Your task to perform on an android device: turn notification dots off Image 0: 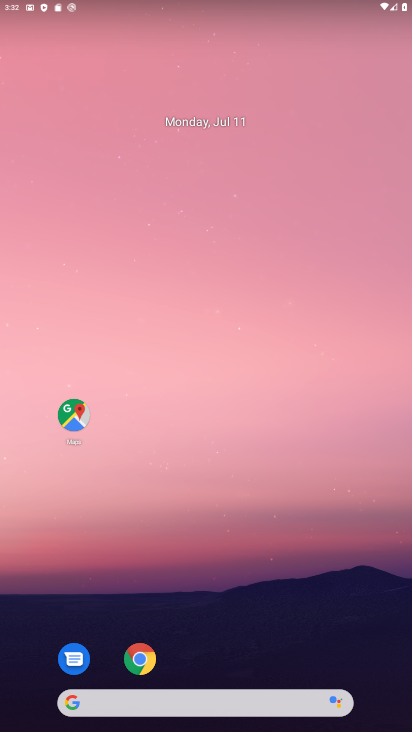
Step 0: drag from (220, 539) to (196, 32)
Your task to perform on an android device: turn notification dots off Image 1: 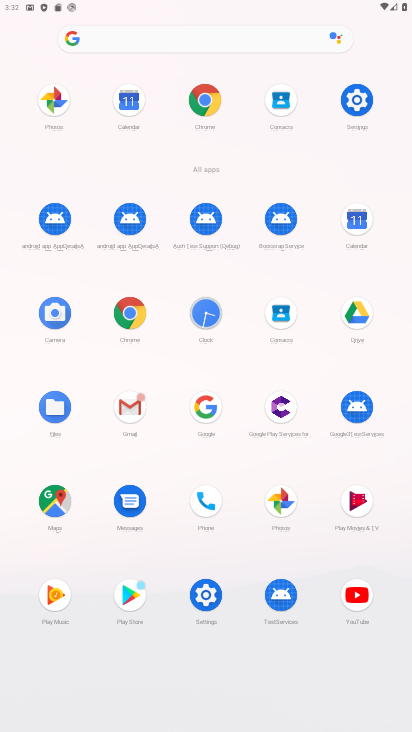
Step 1: click (350, 108)
Your task to perform on an android device: turn notification dots off Image 2: 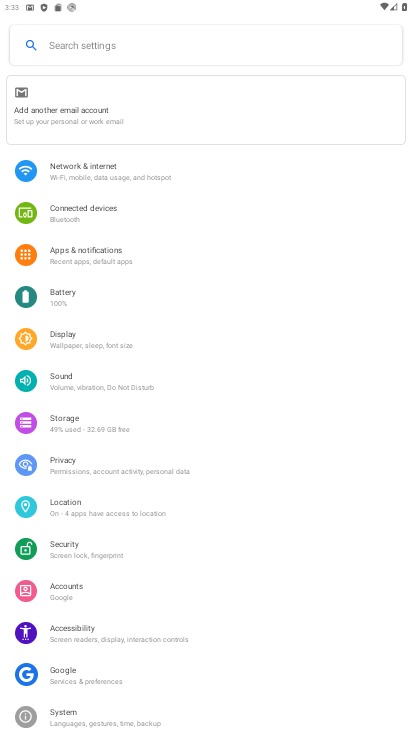
Step 2: click (108, 256)
Your task to perform on an android device: turn notification dots off Image 3: 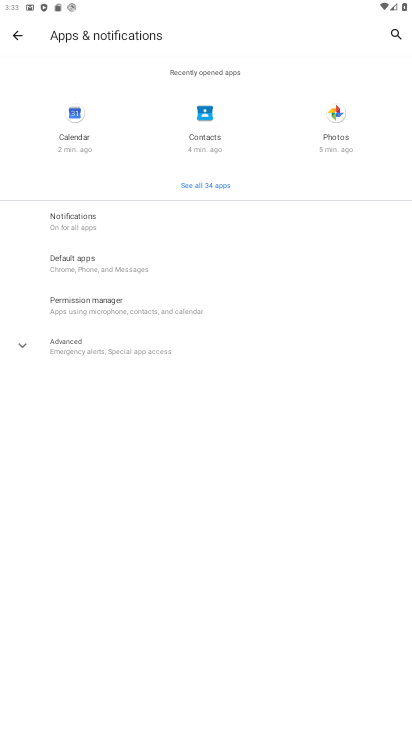
Step 3: click (45, 350)
Your task to perform on an android device: turn notification dots off Image 4: 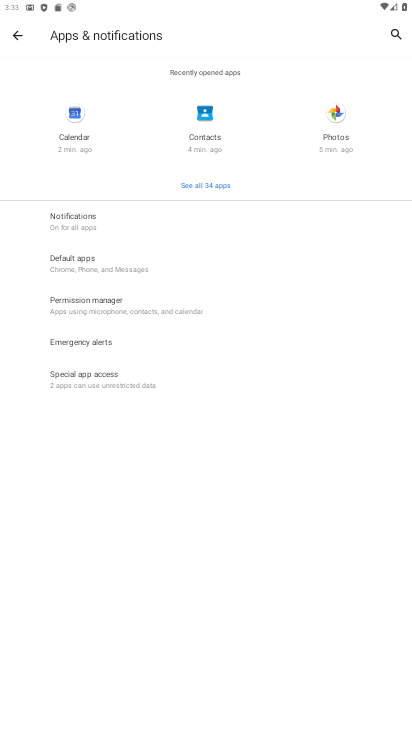
Step 4: click (112, 233)
Your task to perform on an android device: turn notification dots off Image 5: 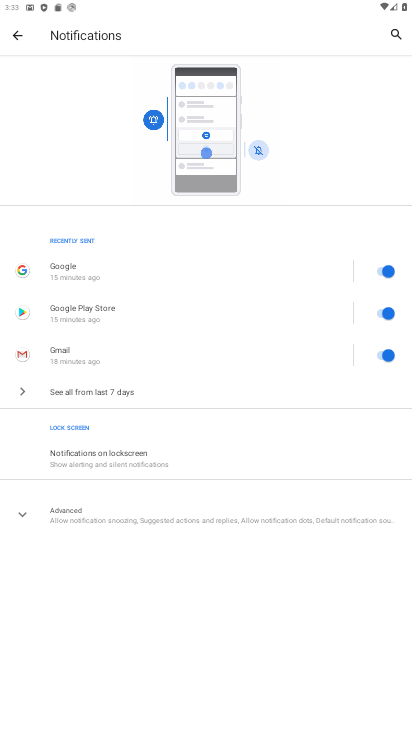
Step 5: click (91, 516)
Your task to perform on an android device: turn notification dots off Image 6: 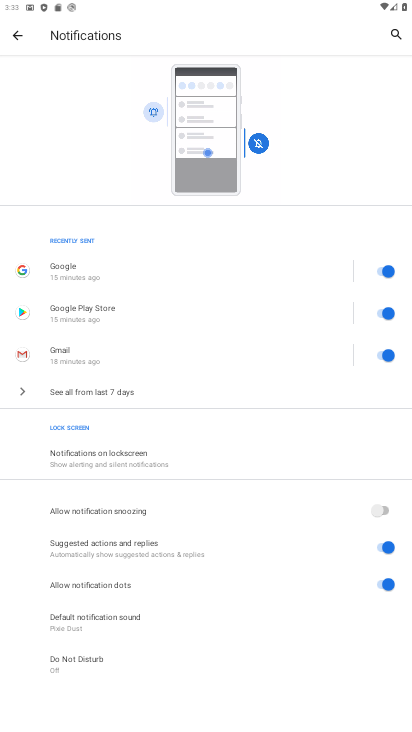
Step 6: click (385, 584)
Your task to perform on an android device: turn notification dots off Image 7: 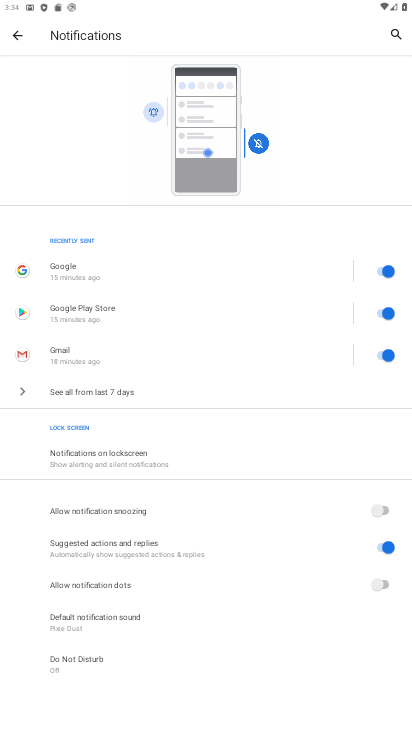
Step 7: task complete